Your task to perform on an android device: Open Android settings Image 0: 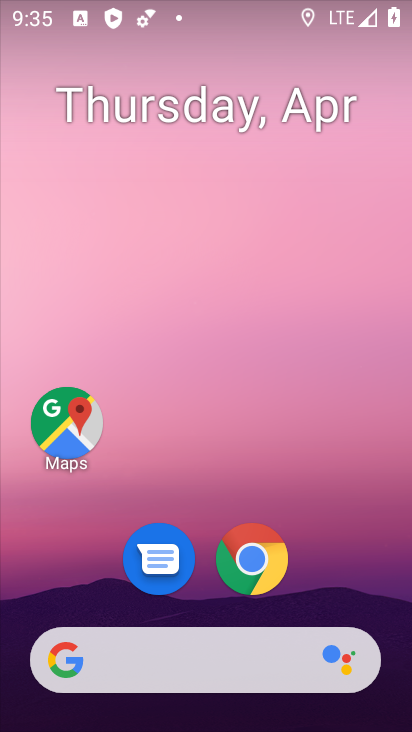
Step 0: drag from (221, 590) to (331, 12)
Your task to perform on an android device: Open Android settings Image 1: 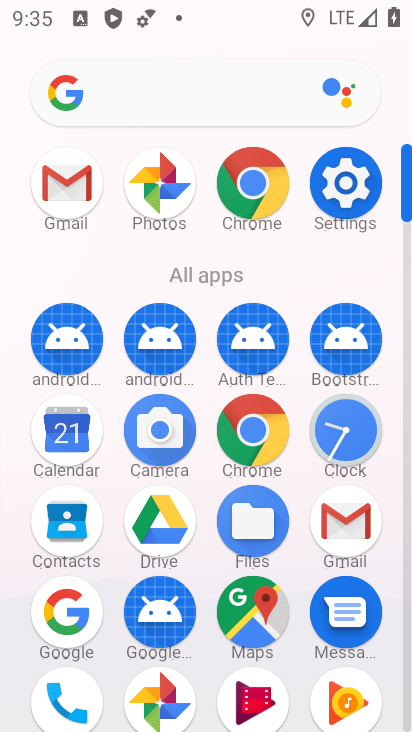
Step 1: click (337, 173)
Your task to perform on an android device: Open Android settings Image 2: 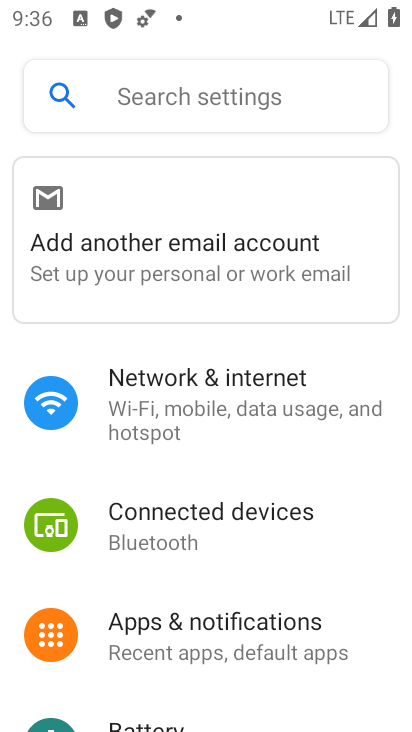
Step 2: task complete